Your task to perform on an android device: open chrome privacy settings Image 0: 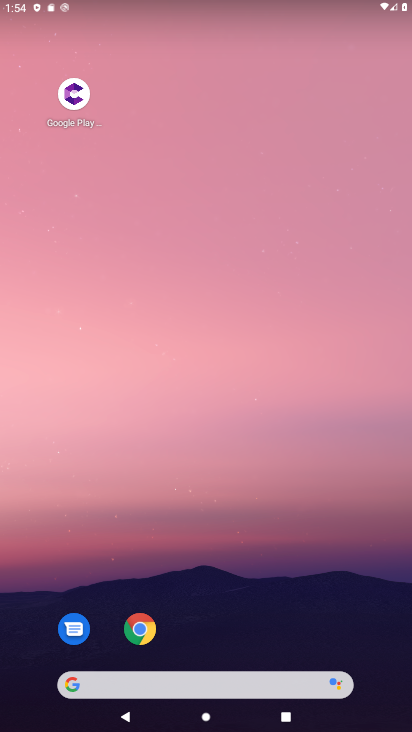
Step 0: drag from (214, 599) to (294, 128)
Your task to perform on an android device: open chrome privacy settings Image 1: 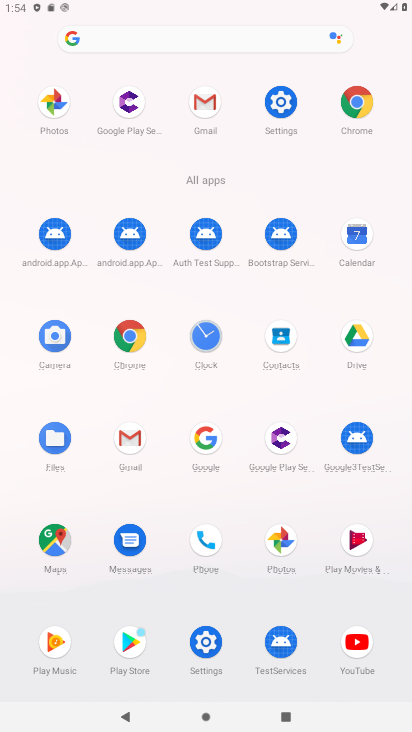
Step 1: click (137, 349)
Your task to perform on an android device: open chrome privacy settings Image 2: 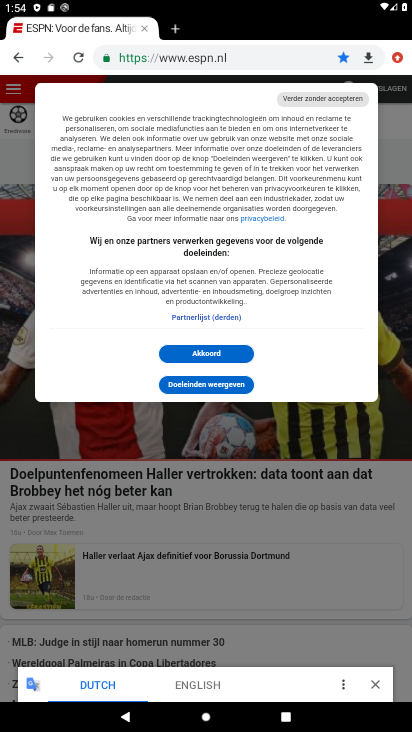
Step 2: drag from (405, 58) to (296, 421)
Your task to perform on an android device: open chrome privacy settings Image 3: 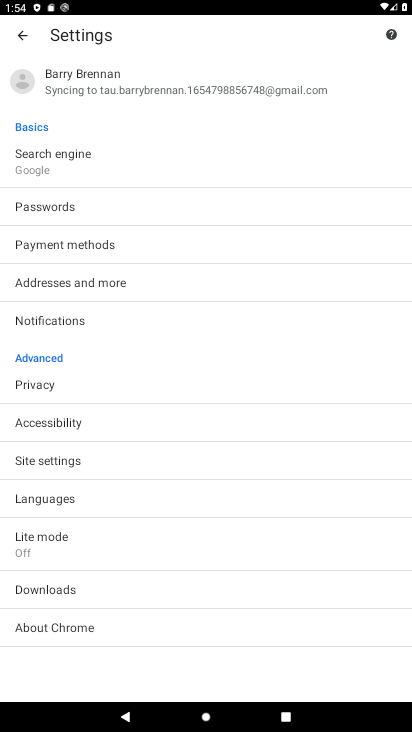
Step 3: click (80, 387)
Your task to perform on an android device: open chrome privacy settings Image 4: 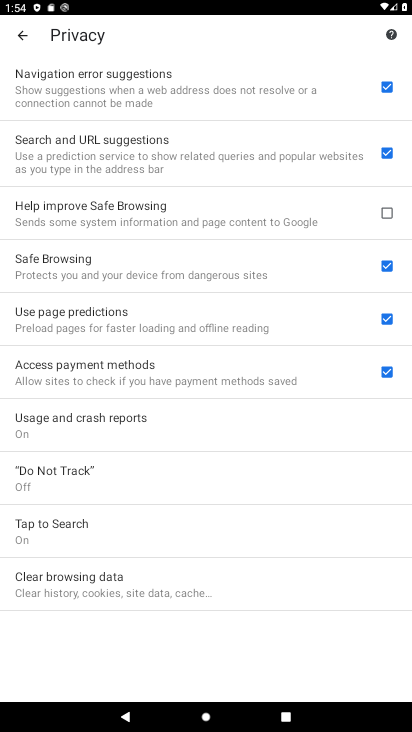
Step 4: task complete